Your task to perform on an android device: clear all cookies in the chrome app Image 0: 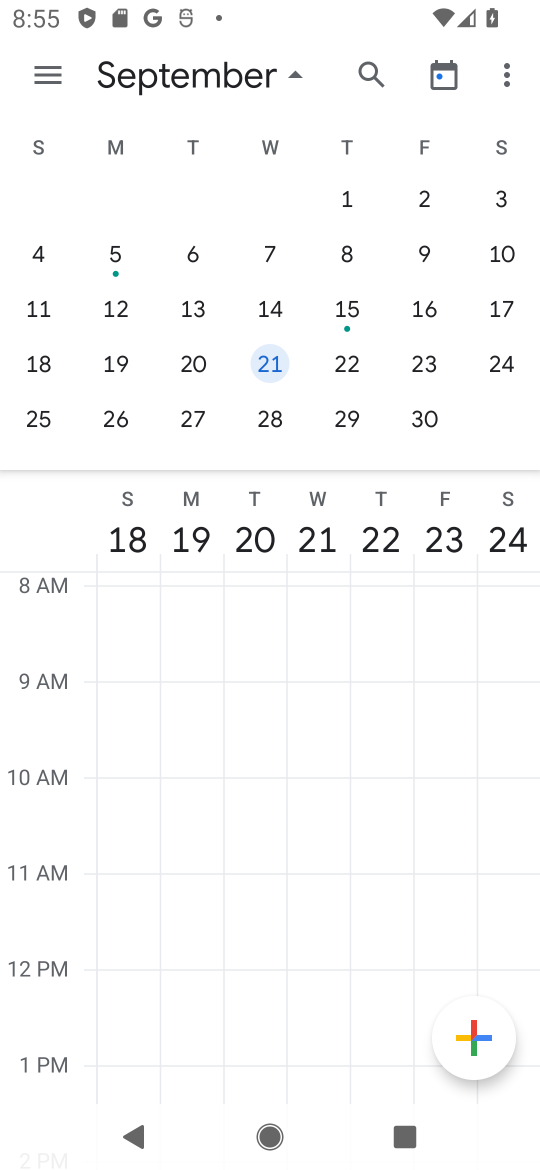
Step 0: press home button
Your task to perform on an android device: clear all cookies in the chrome app Image 1: 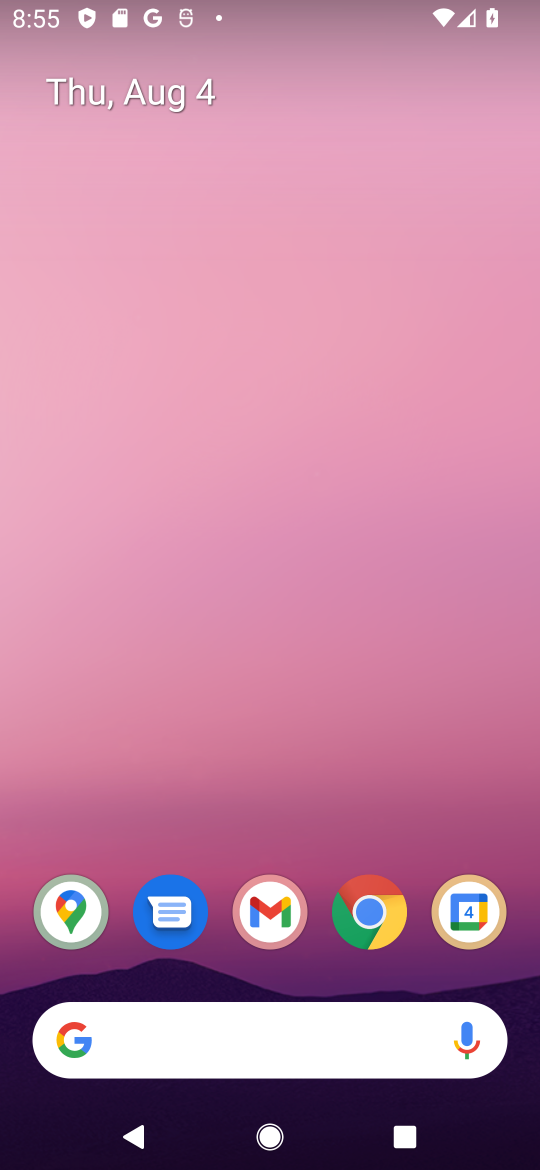
Step 1: click (364, 915)
Your task to perform on an android device: clear all cookies in the chrome app Image 2: 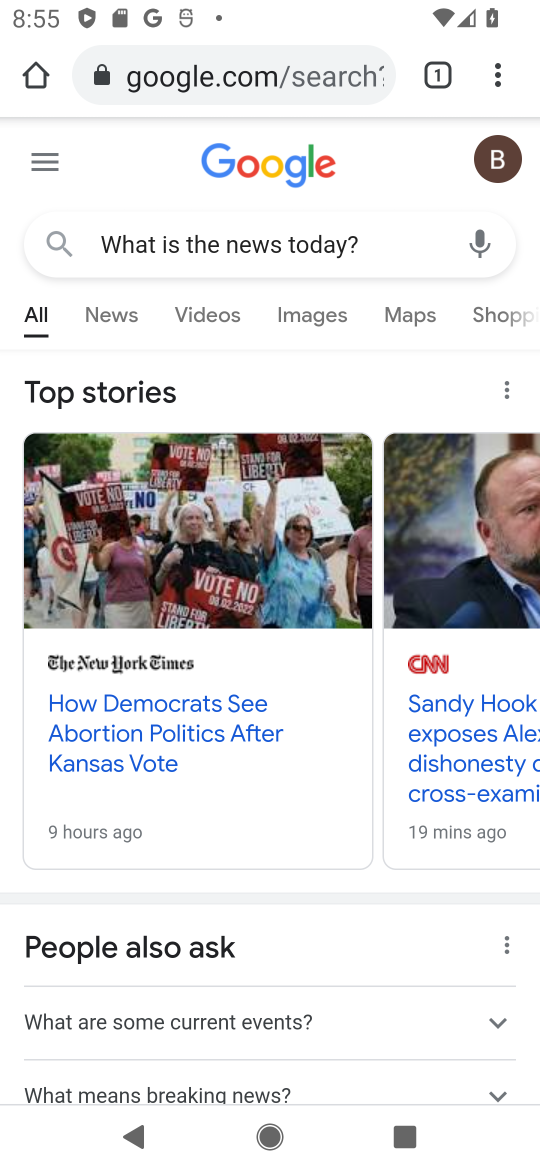
Step 2: click (502, 58)
Your task to perform on an android device: clear all cookies in the chrome app Image 3: 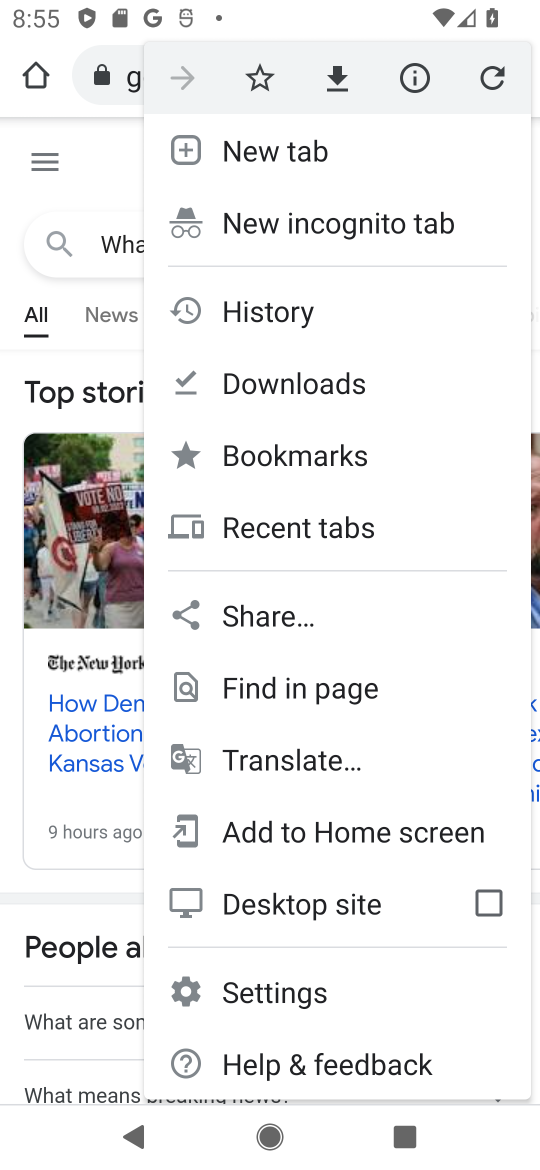
Step 3: click (301, 325)
Your task to perform on an android device: clear all cookies in the chrome app Image 4: 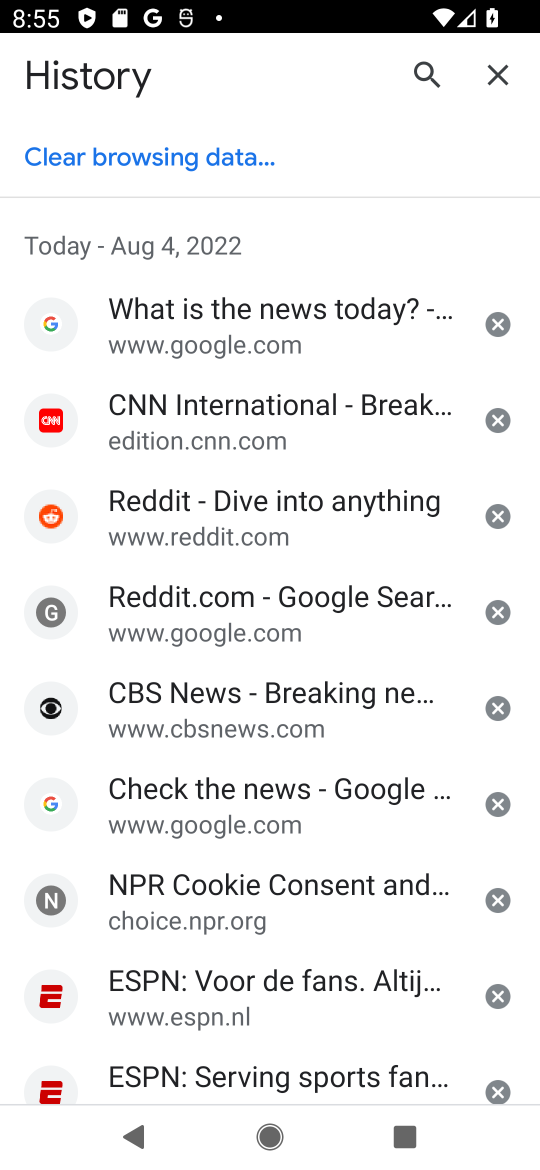
Step 4: click (213, 165)
Your task to perform on an android device: clear all cookies in the chrome app Image 5: 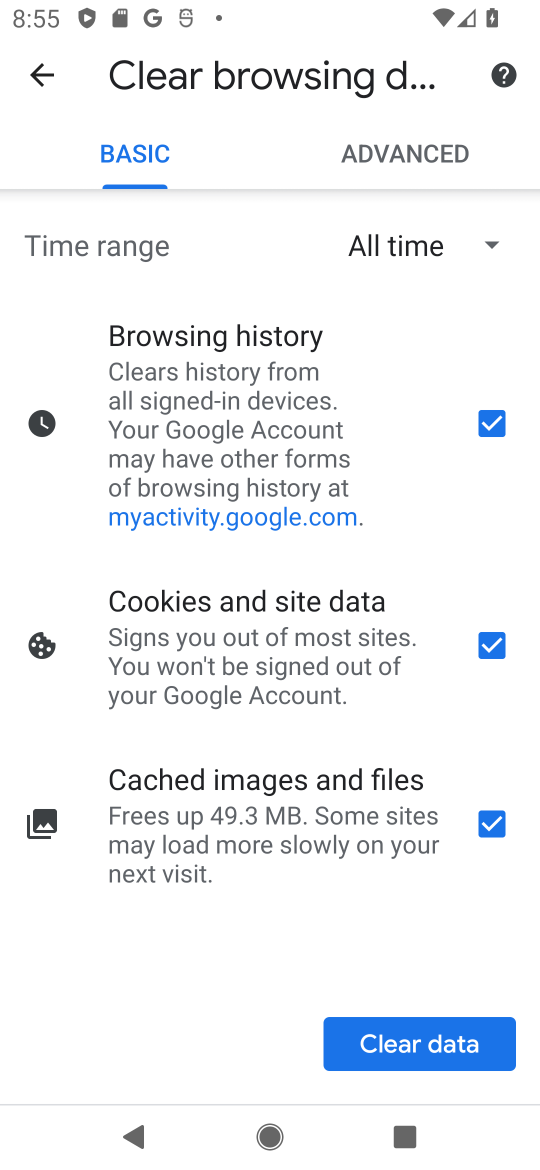
Step 5: click (490, 844)
Your task to perform on an android device: clear all cookies in the chrome app Image 6: 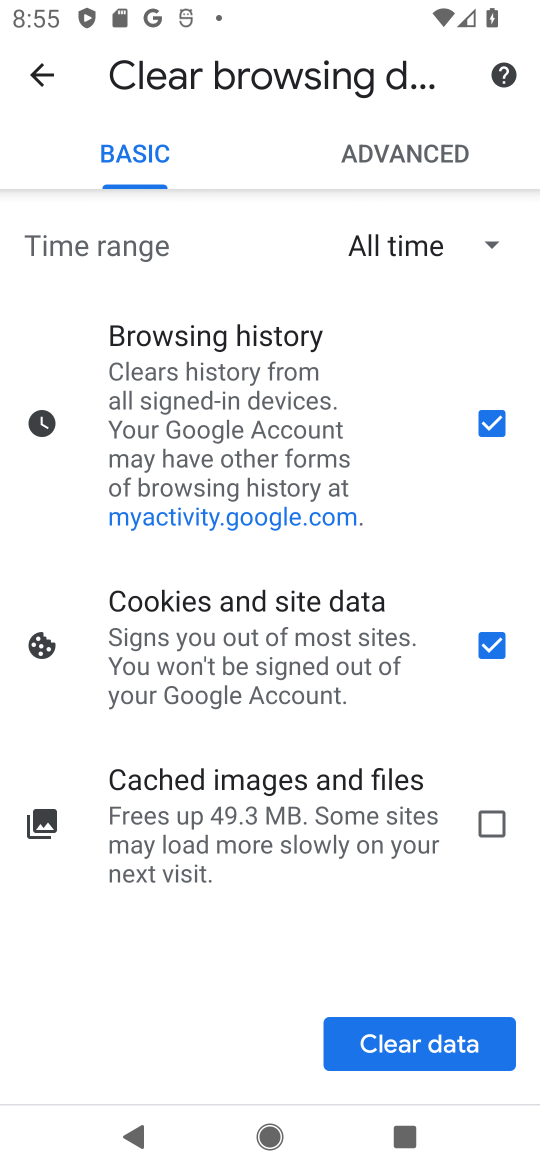
Step 6: click (490, 400)
Your task to perform on an android device: clear all cookies in the chrome app Image 7: 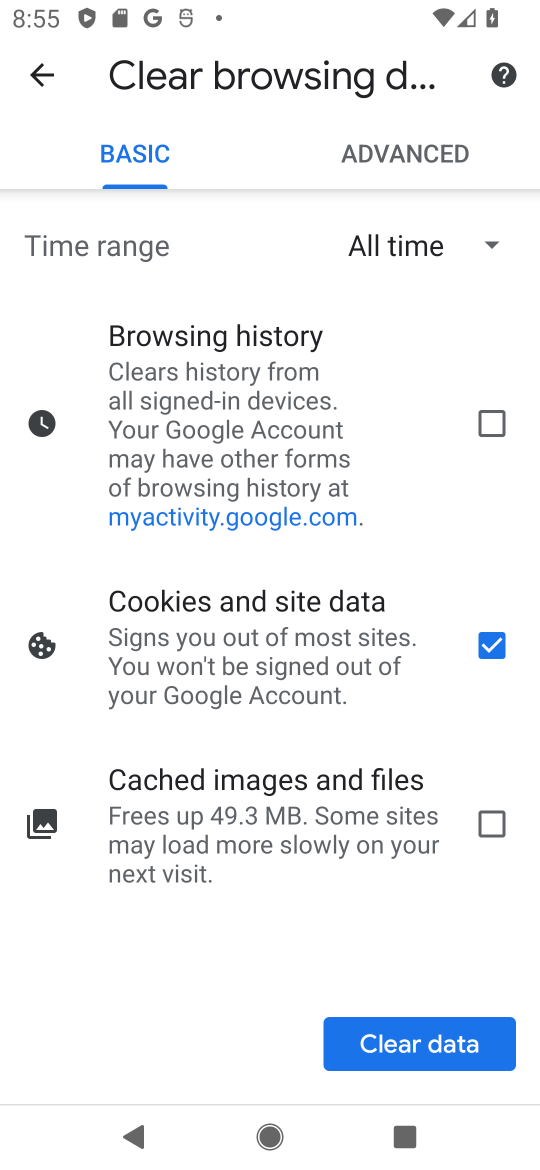
Step 7: click (449, 1043)
Your task to perform on an android device: clear all cookies in the chrome app Image 8: 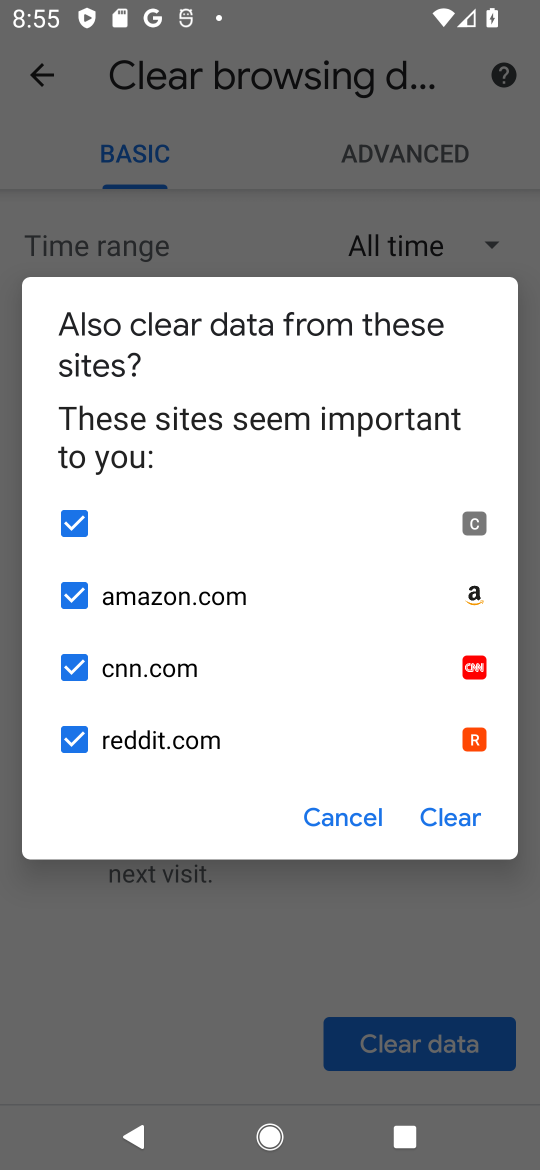
Step 8: click (464, 800)
Your task to perform on an android device: clear all cookies in the chrome app Image 9: 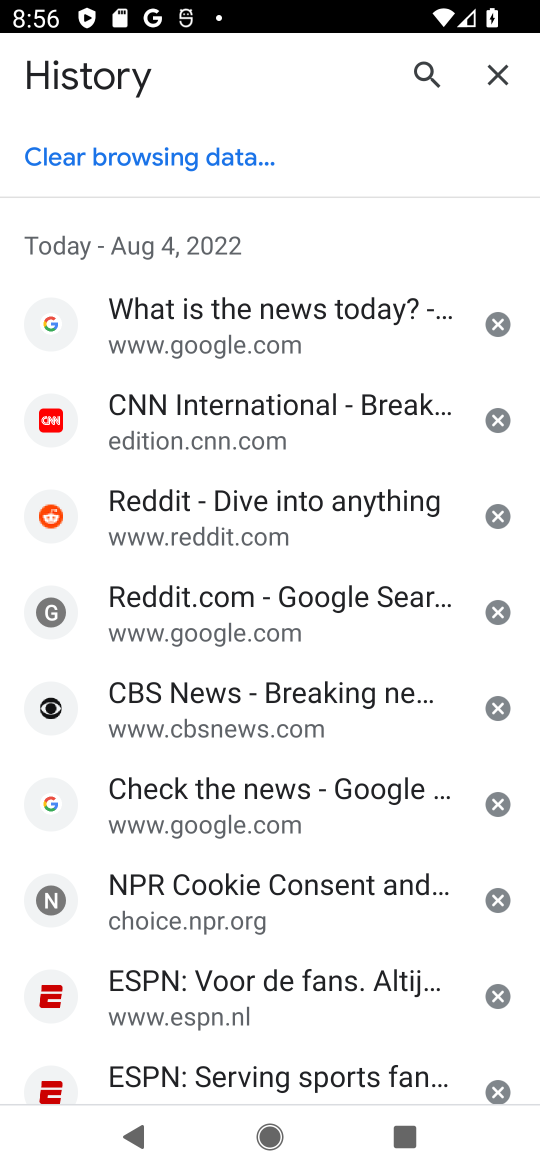
Step 9: task complete